Your task to perform on an android device: Open Android settings Image 0: 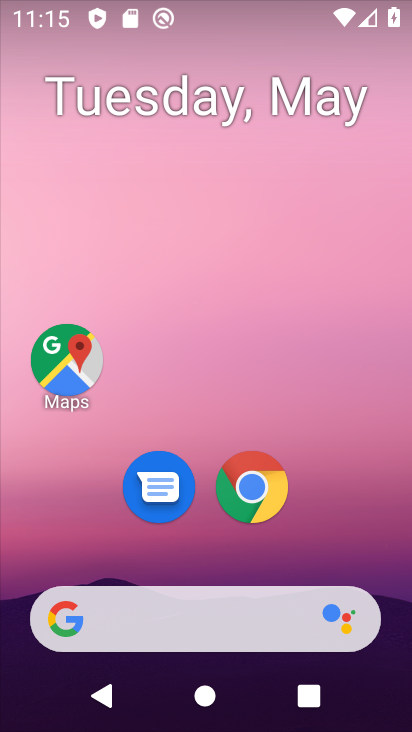
Step 0: click (328, 202)
Your task to perform on an android device: Open Android settings Image 1: 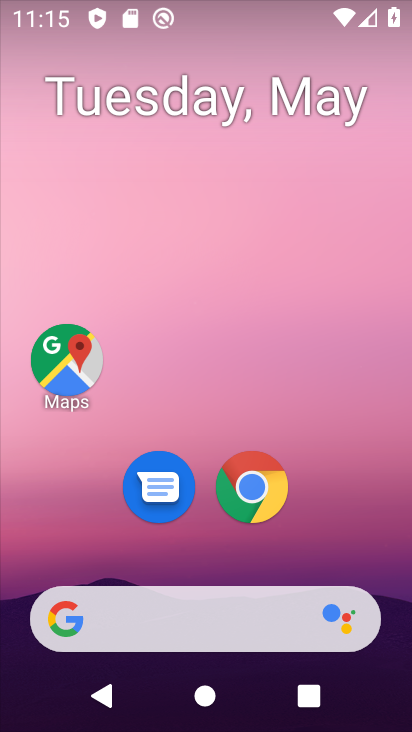
Step 1: drag from (272, 542) to (268, 251)
Your task to perform on an android device: Open Android settings Image 2: 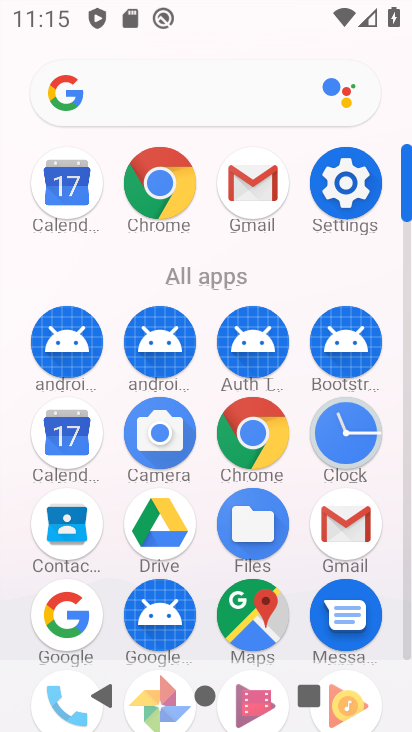
Step 2: click (339, 178)
Your task to perform on an android device: Open Android settings Image 3: 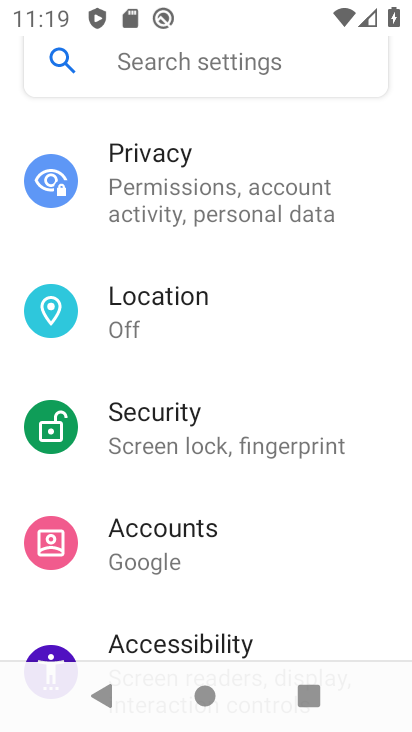
Step 3: task complete